Your task to perform on an android device: open chrome and create a bookmark for the current page Image 0: 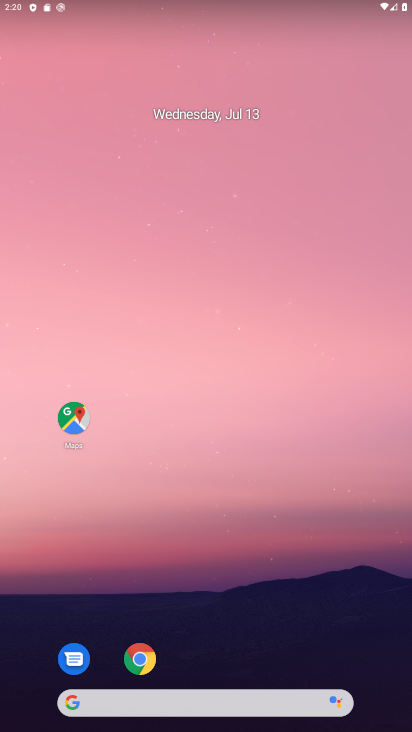
Step 0: drag from (206, 665) to (200, 35)
Your task to perform on an android device: open chrome and create a bookmark for the current page Image 1: 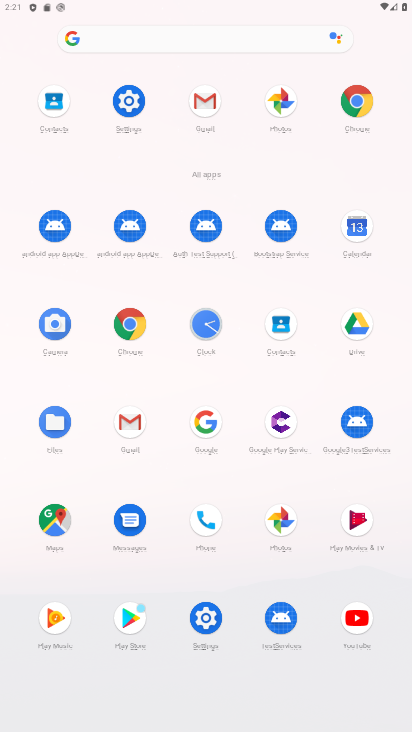
Step 1: click (362, 100)
Your task to perform on an android device: open chrome and create a bookmark for the current page Image 2: 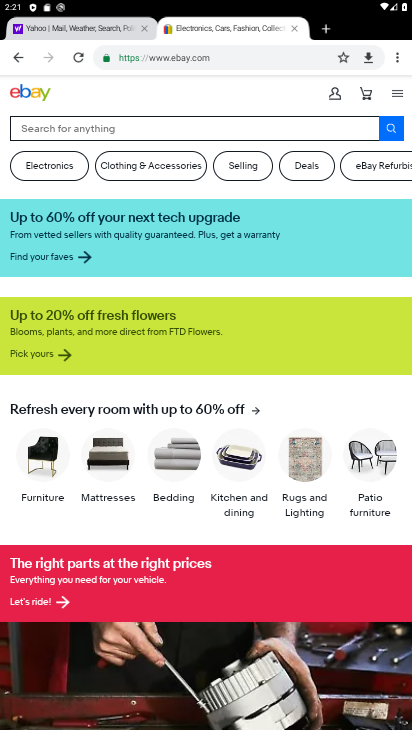
Step 2: click (395, 60)
Your task to perform on an android device: open chrome and create a bookmark for the current page Image 3: 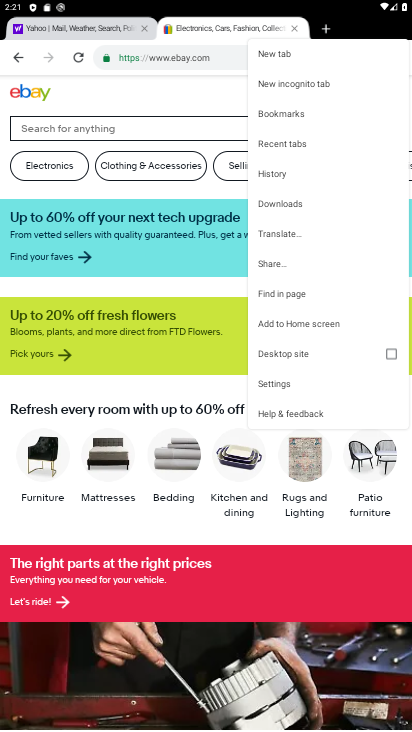
Step 3: click (148, 81)
Your task to perform on an android device: open chrome and create a bookmark for the current page Image 4: 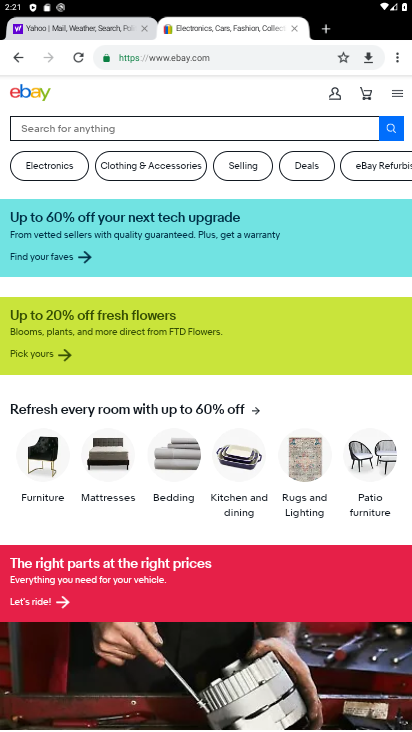
Step 4: click (339, 57)
Your task to perform on an android device: open chrome and create a bookmark for the current page Image 5: 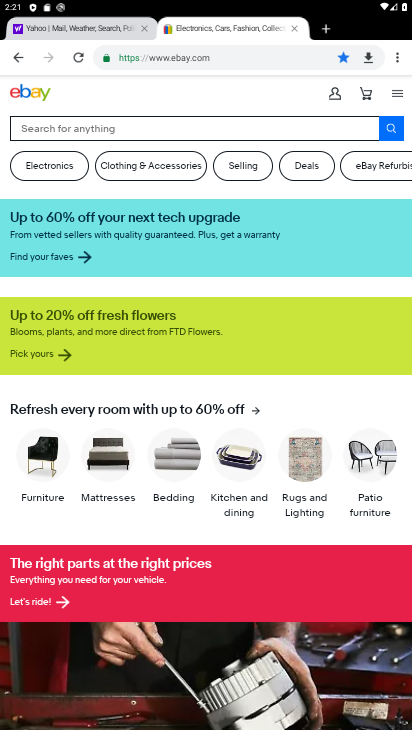
Step 5: task complete